Your task to perform on an android device: Open notification settings Image 0: 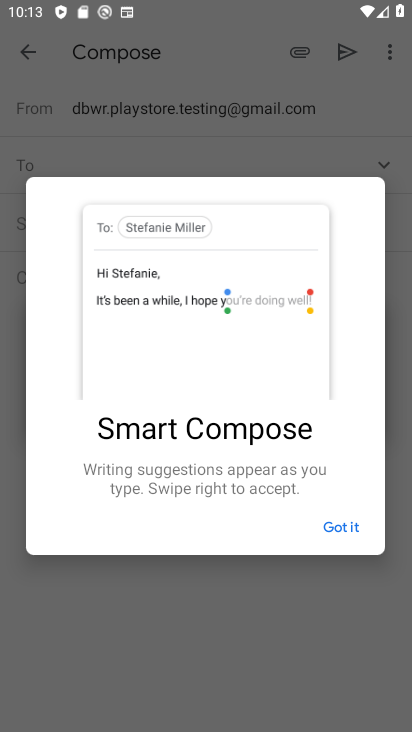
Step 0: press home button
Your task to perform on an android device: Open notification settings Image 1: 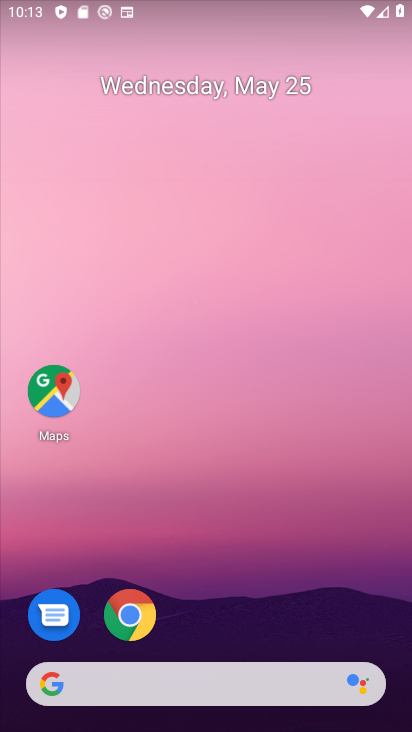
Step 1: drag from (208, 634) to (172, 59)
Your task to perform on an android device: Open notification settings Image 2: 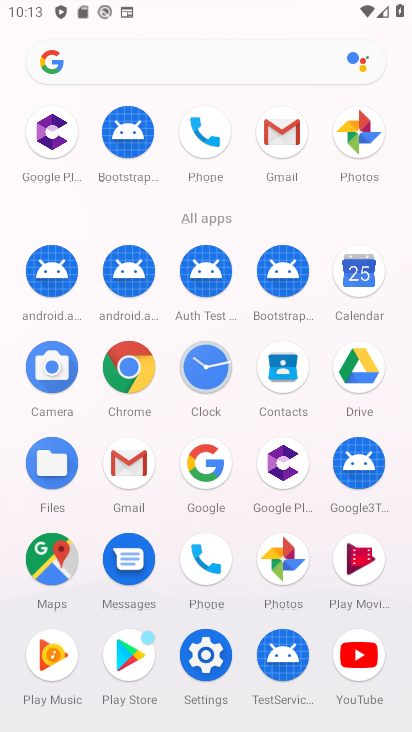
Step 2: click (211, 675)
Your task to perform on an android device: Open notification settings Image 3: 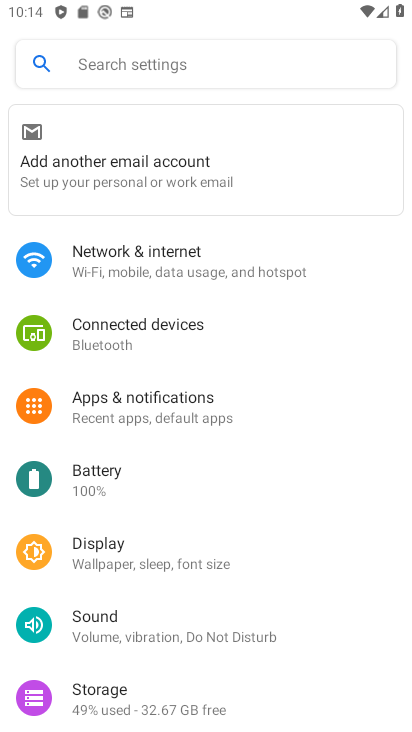
Step 3: click (194, 412)
Your task to perform on an android device: Open notification settings Image 4: 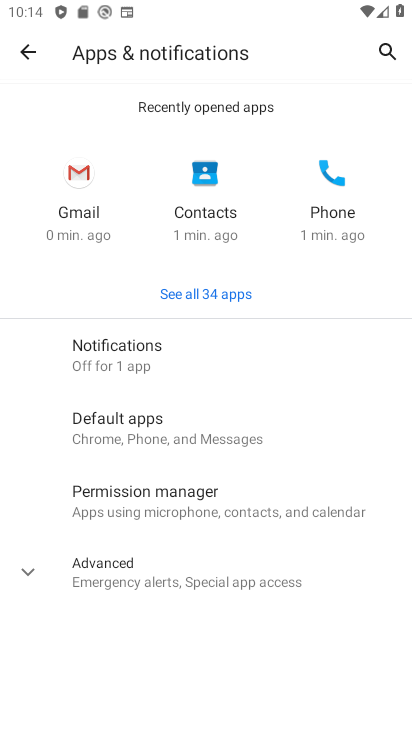
Step 4: click (198, 420)
Your task to perform on an android device: Open notification settings Image 5: 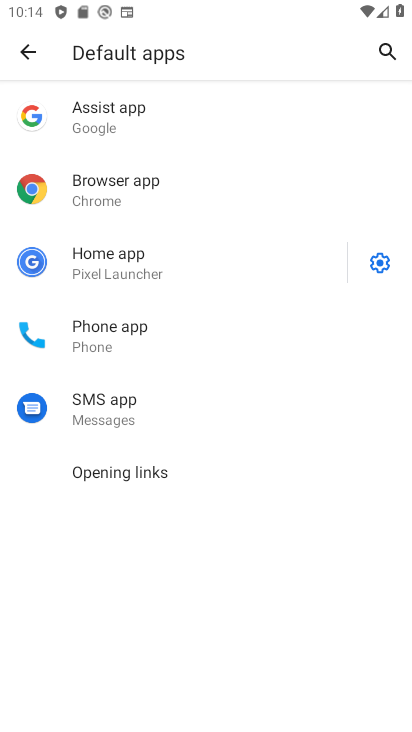
Step 5: task complete